Your task to perform on an android device: open app "Messages" (install if not already installed) Image 0: 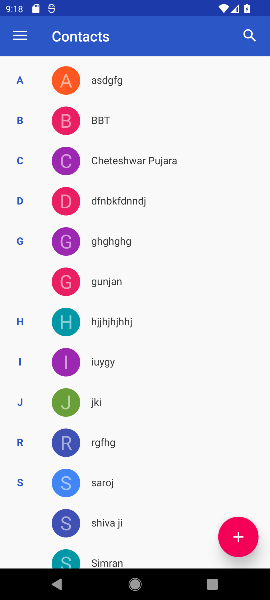
Step 0: press home button
Your task to perform on an android device: open app "Messages" (install if not already installed) Image 1: 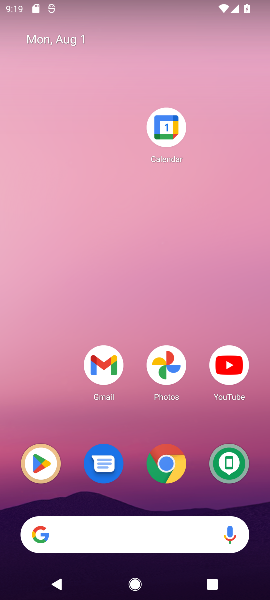
Step 1: drag from (78, 191) to (78, 96)
Your task to perform on an android device: open app "Messages" (install if not already installed) Image 2: 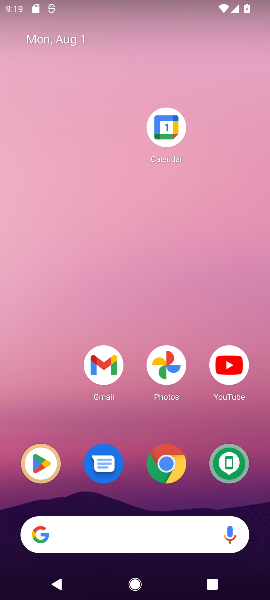
Step 2: click (101, 463)
Your task to perform on an android device: open app "Messages" (install if not already installed) Image 3: 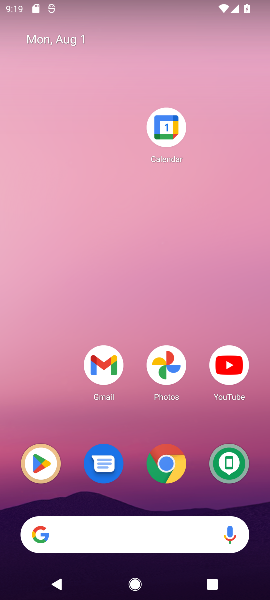
Step 3: task complete